Your task to perform on an android device: Search for Mexican restaurants on Maps Image 0: 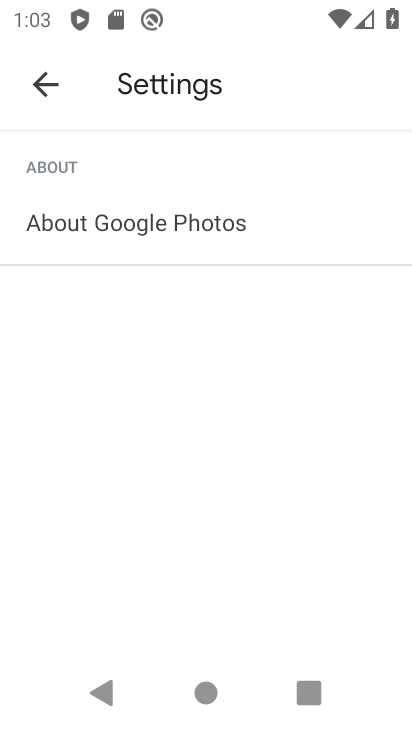
Step 0: press home button
Your task to perform on an android device: Search for Mexican restaurants on Maps Image 1: 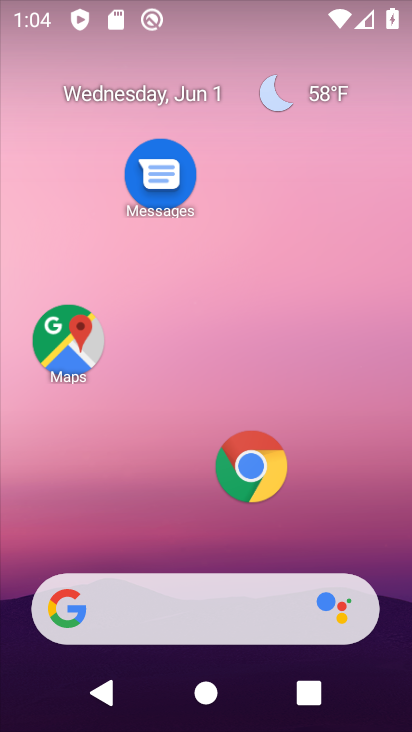
Step 1: click (91, 356)
Your task to perform on an android device: Search for Mexican restaurants on Maps Image 2: 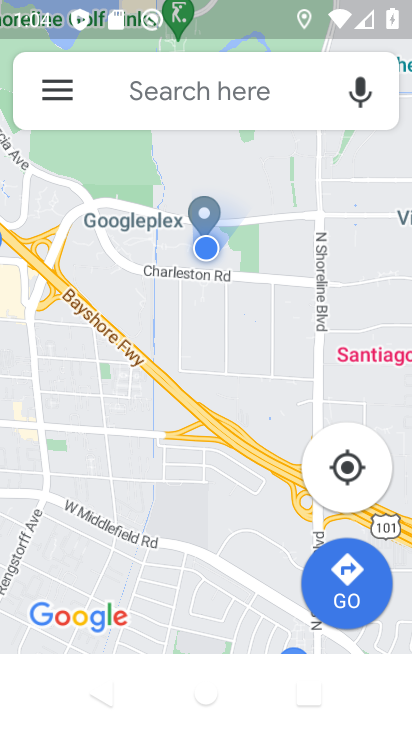
Step 2: click (163, 92)
Your task to perform on an android device: Search for Mexican restaurants on Maps Image 3: 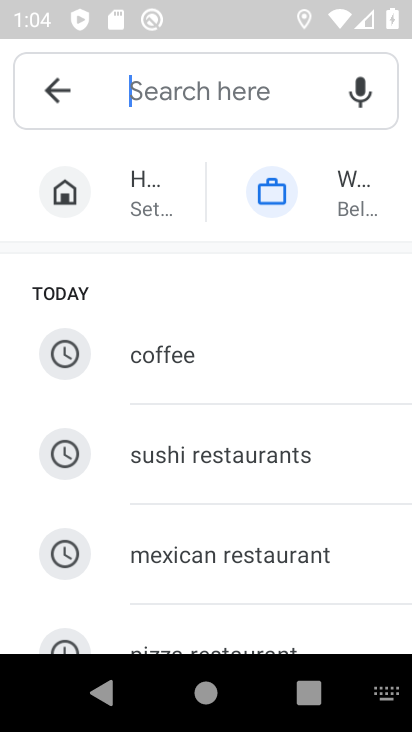
Step 3: click (287, 561)
Your task to perform on an android device: Search for Mexican restaurants on Maps Image 4: 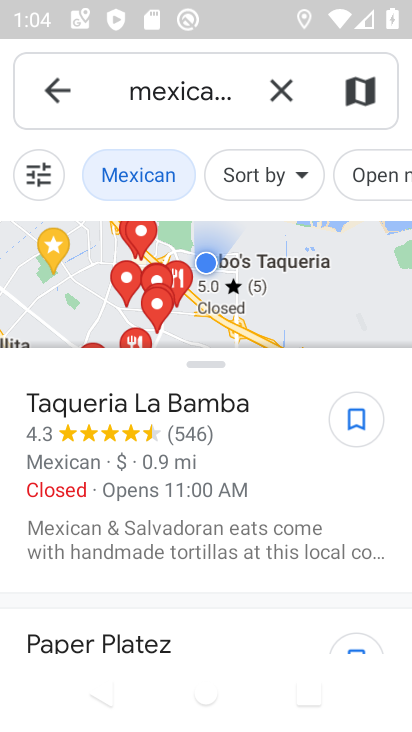
Step 4: task complete